Your task to perform on an android device: toggle sleep mode Image 0: 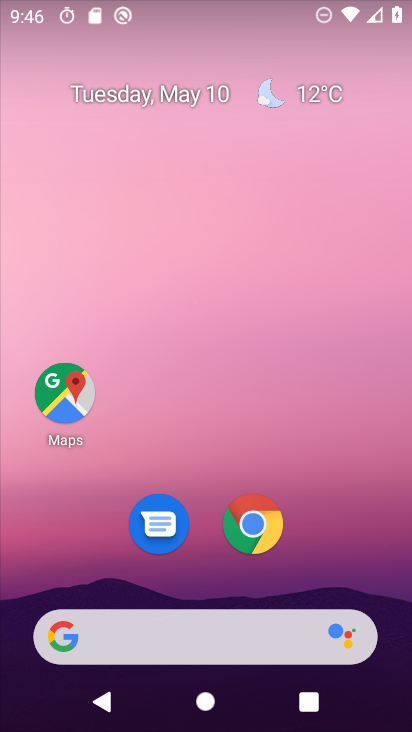
Step 0: drag from (322, 537) to (338, 39)
Your task to perform on an android device: toggle sleep mode Image 1: 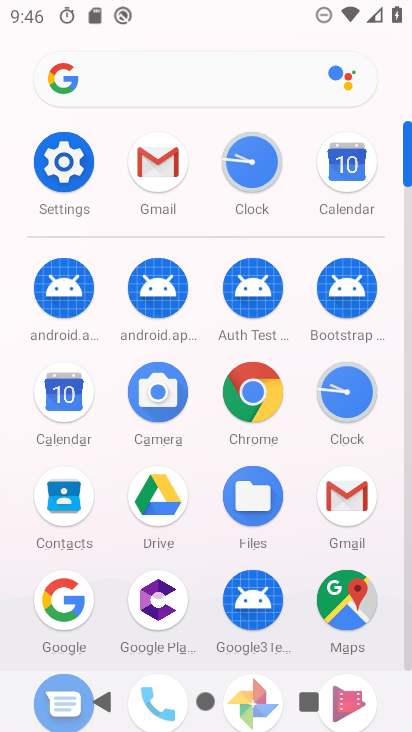
Step 1: click (80, 163)
Your task to perform on an android device: toggle sleep mode Image 2: 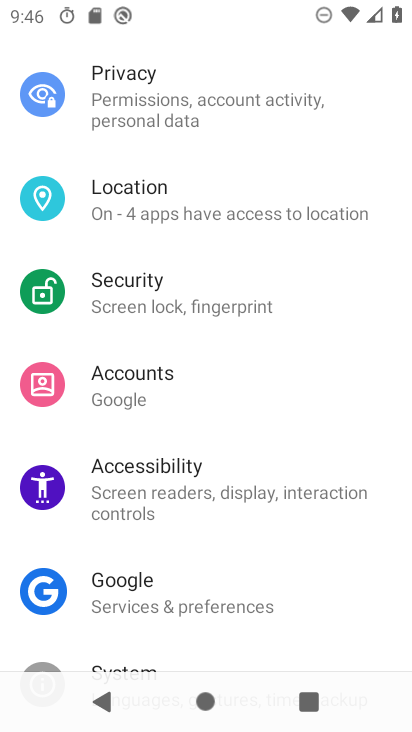
Step 2: drag from (288, 257) to (283, 614)
Your task to perform on an android device: toggle sleep mode Image 3: 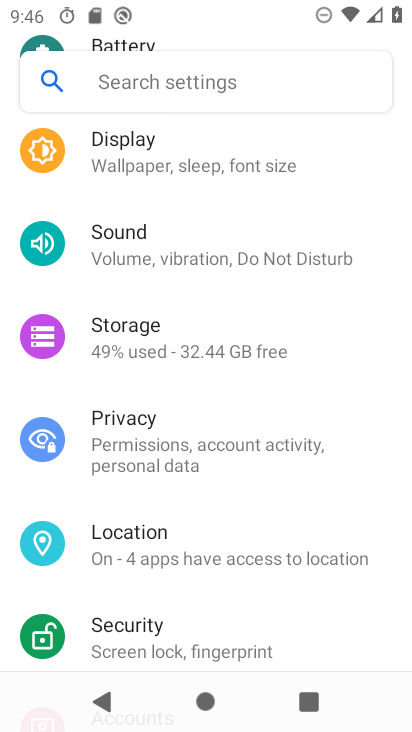
Step 3: click (238, 151)
Your task to perform on an android device: toggle sleep mode Image 4: 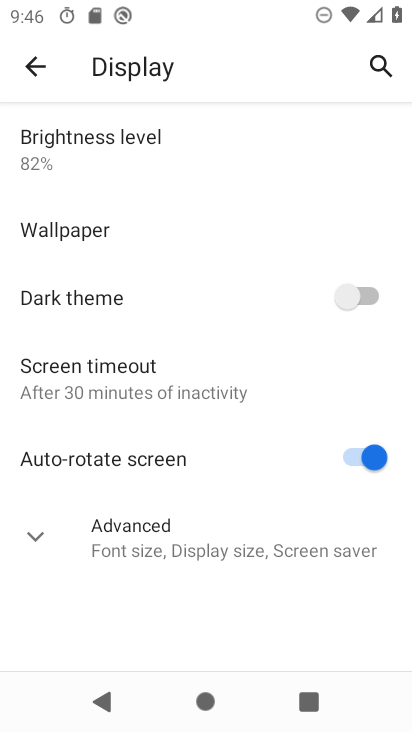
Step 4: click (37, 534)
Your task to perform on an android device: toggle sleep mode Image 5: 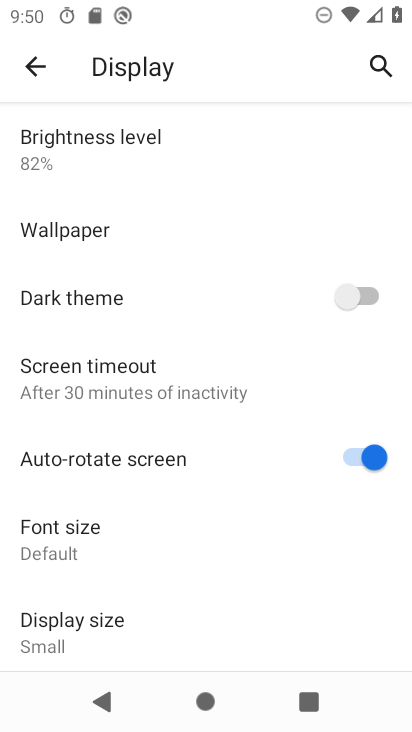
Step 5: task complete